Your task to perform on an android device: Is it going to rain tomorrow? Image 0: 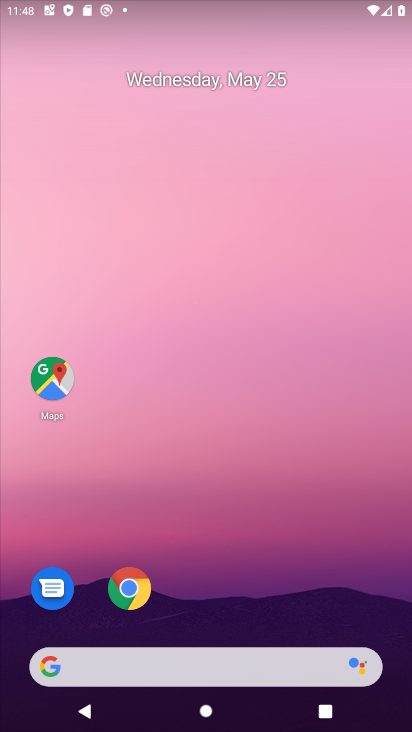
Step 0: drag from (218, 467) to (216, 16)
Your task to perform on an android device: Is it going to rain tomorrow? Image 1: 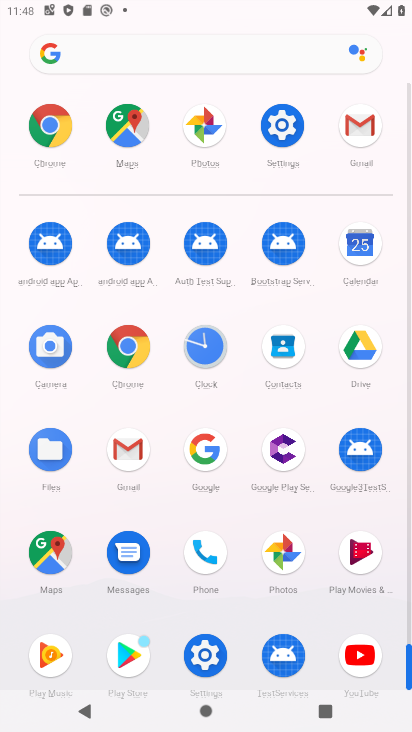
Step 1: drag from (7, 564) to (16, 243)
Your task to perform on an android device: Is it going to rain tomorrow? Image 2: 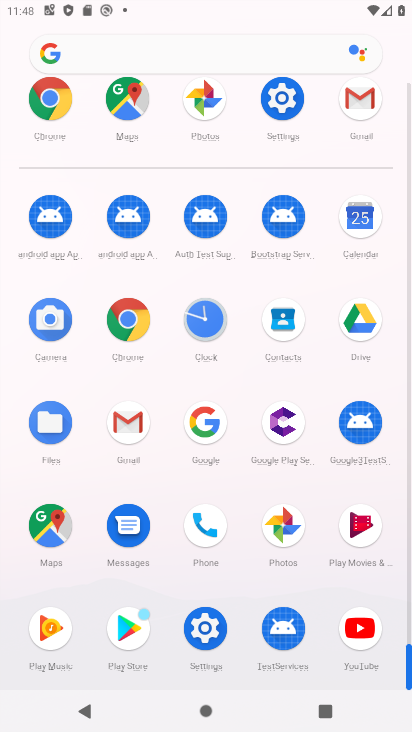
Step 2: click (132, 314)
Your task to perform on an android device: Is it going to rain tomorrow? Image 3: 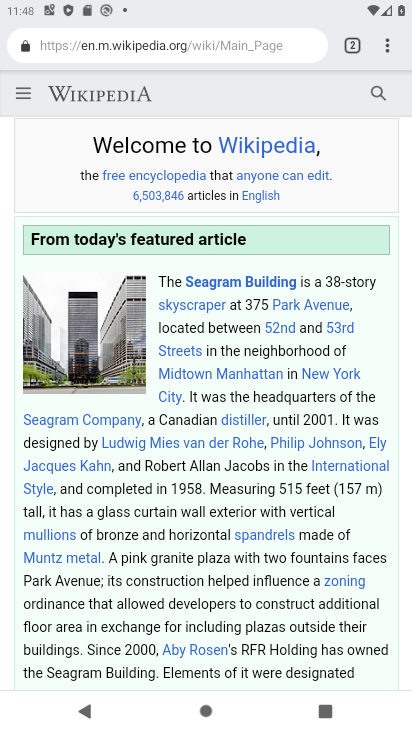
Step 3: click (189, 39)
Your task to perform on an android device: Is it going to rain tomorrow? Image 4: 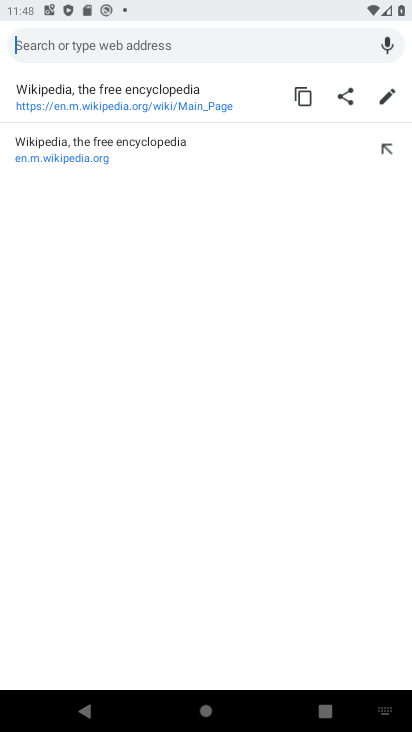
Step 4: type "Is it going to rain tomorrow?"
Your task to perform on an android device: Is it going to rain tomorrow? Image 5: 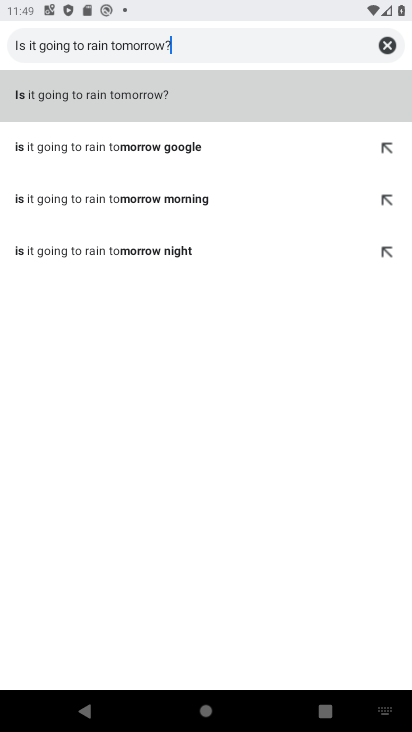
Step 5: click (103, 87)
Your task to perform on an android device: Is it going to rain tomorrow? Image 6: 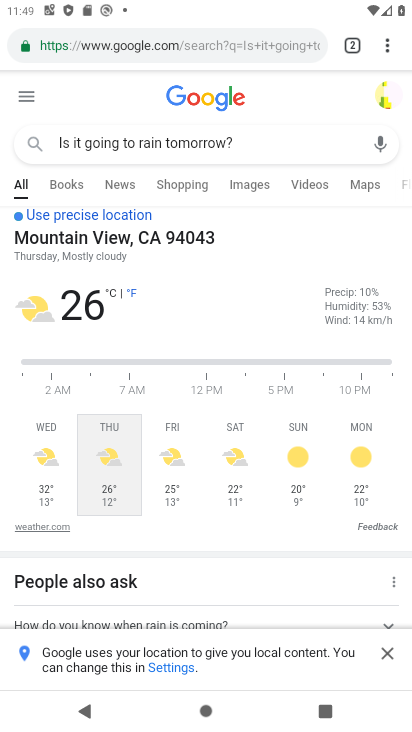
Step 6: task complete